Your task to perform on an android device: Search for Italian restaurants on Maps Image 0: 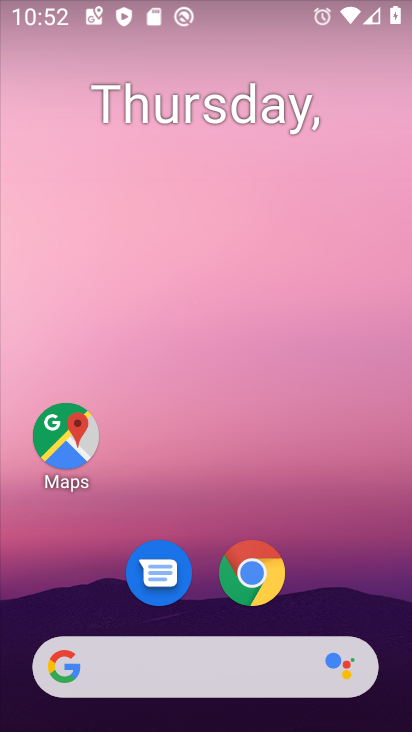
Step 0: click (59, 443)
Your task to perform on an android device: Search for Italian restaurants on Maps Image 1: 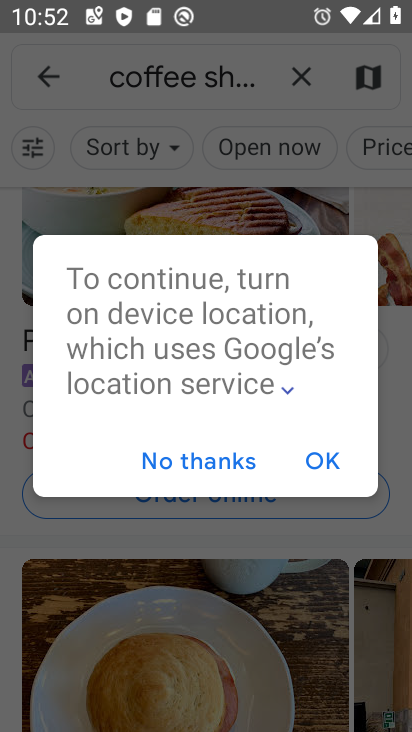
Step 1: click (324, 457)
Your task to perform on an android device: Search for Italian restaurants on Maps Image 2: 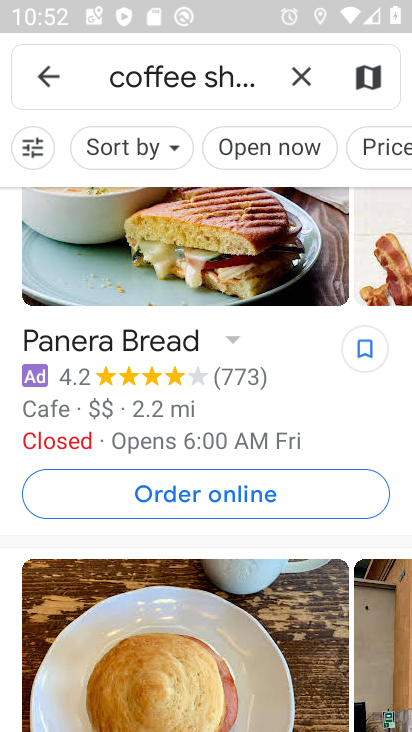
Step 2: click (199, 65)
Your task to perform on an android device: Search for Italian restaurants on Maps Image 3: 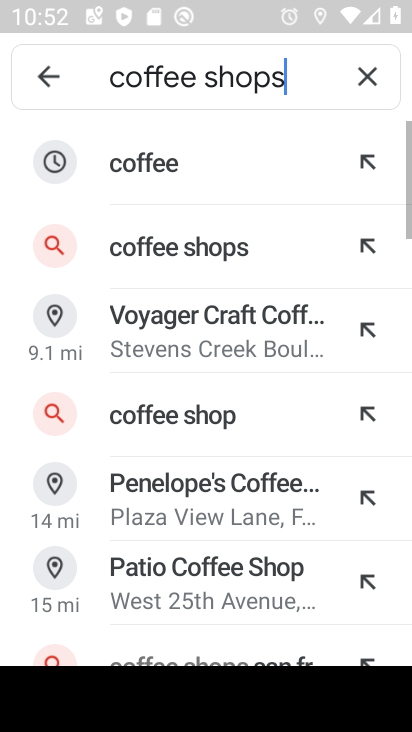
Step 3: click (374, 80)
Your task to perform on an android device: Search for Italian restaurants on Maps Image 4: 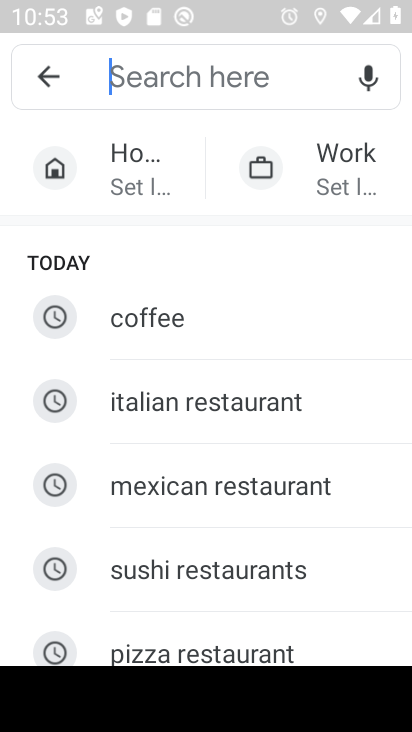
Step 4: type "Italian restaurants'"
Your task to perform on an android device: Search for Italian restaurants on Maps Image 5: 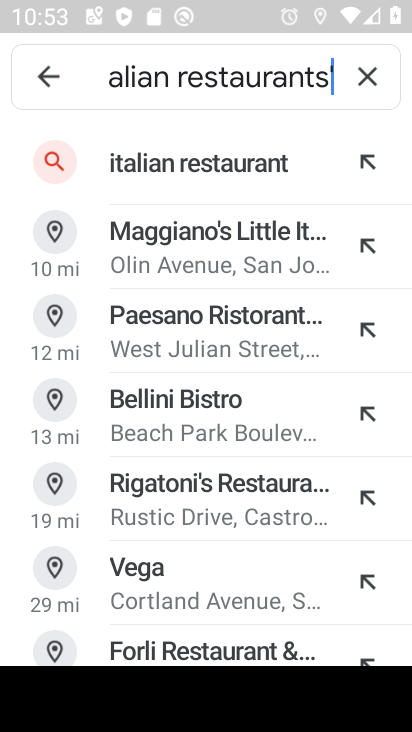
Step 5: press enter
Your task to perform on an android device: Search for Italian restaurants on Maps Image 6: 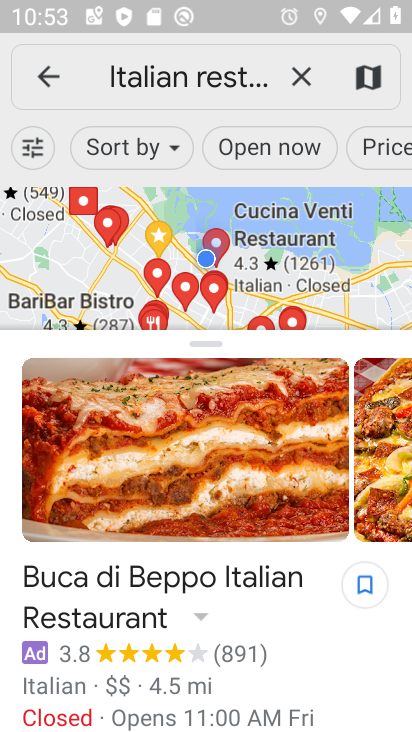
Step 6: task complete